Your task to perform on an android device: Go to settings Image 0: 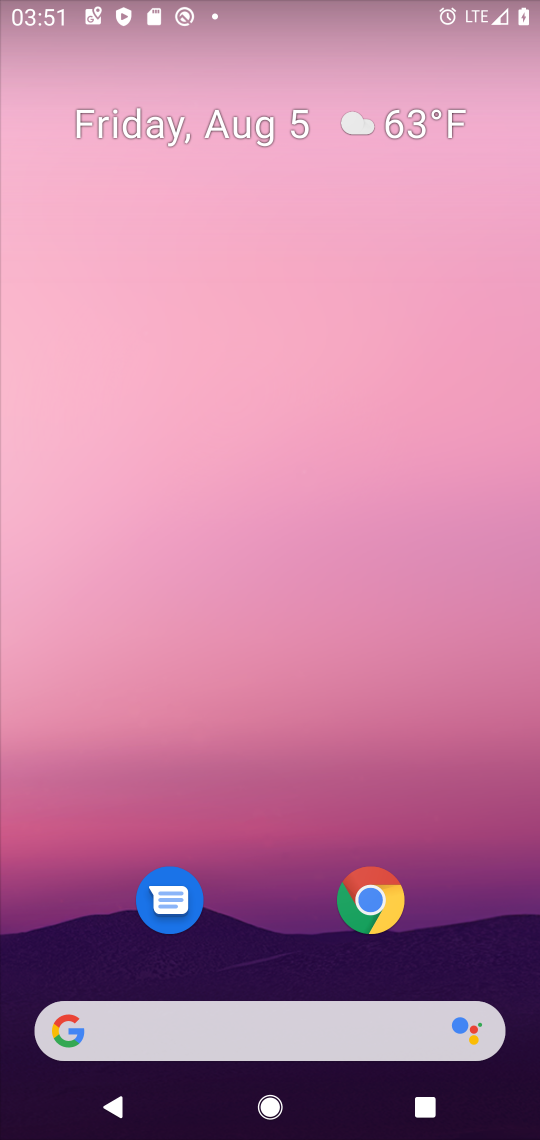
Step 0: drag from (195, 952) to (312, 183)
Your task to perform on an android device: Go to settings Image 1: 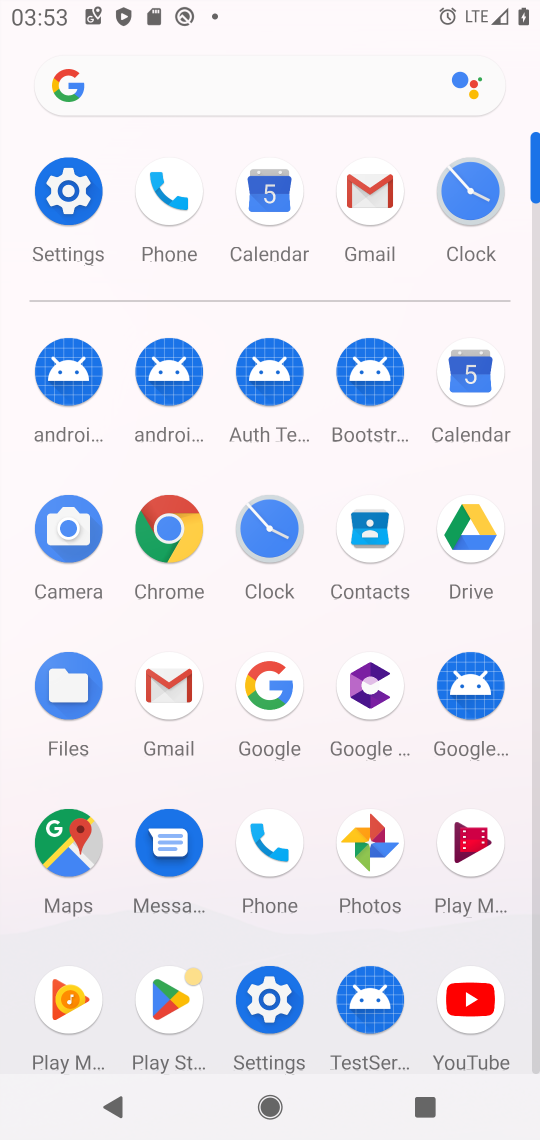
Step 1: click (64, 197)
Your task to perform on an android device: Go to settings Image 2: 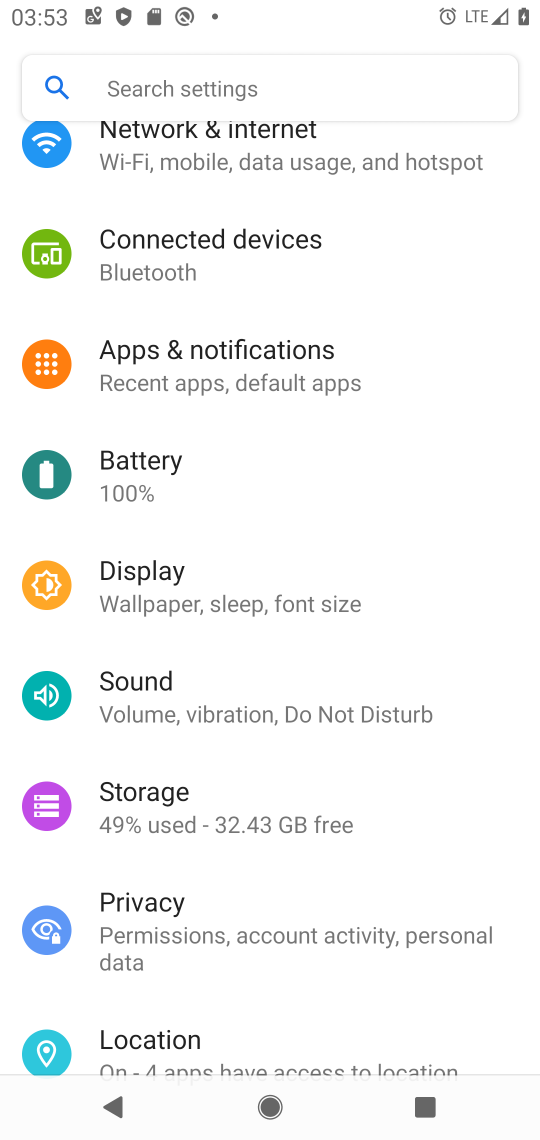
Step 2: task complete